Your task to perform on an android device: clear all cookies in the chrome app Image 0: 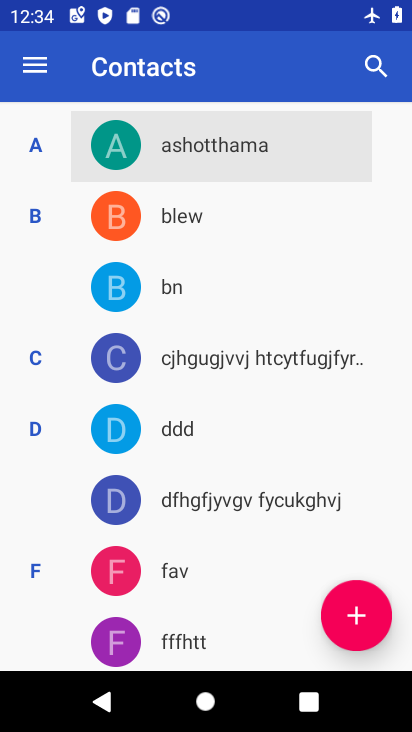
Step 0: press home button
Your task to perform on an android device: clear all cookies in the chrome app Image 1: 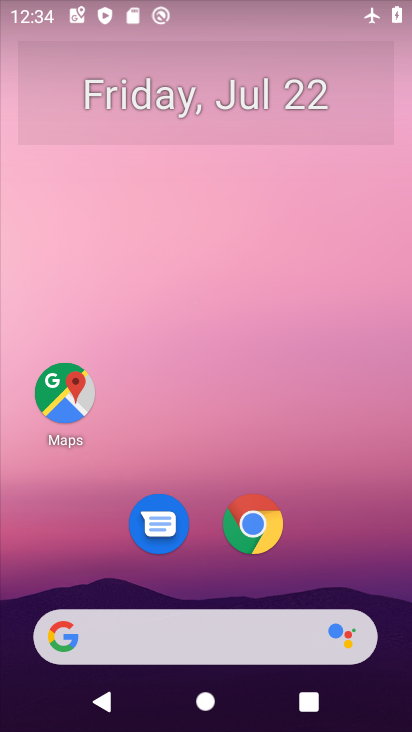
Step 1: drag from (316, 574) to (344, 65)
Your task to perform on an android device: clear all cookies in the chrome app Image 2: 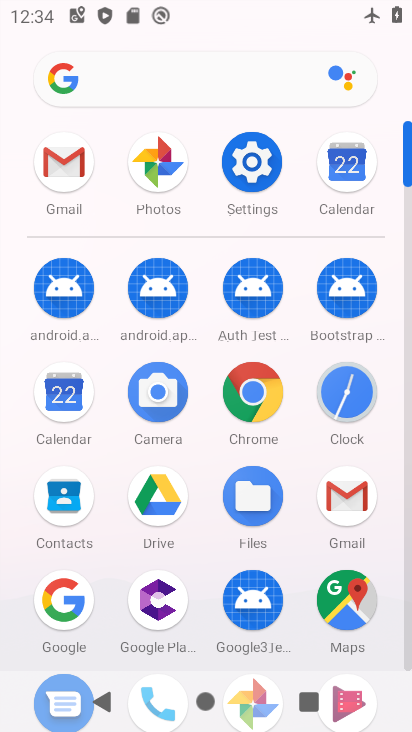
Step 2: click (256, 386)
Your task to perform on an android device: clear all cookies in the chrome app Image 3: 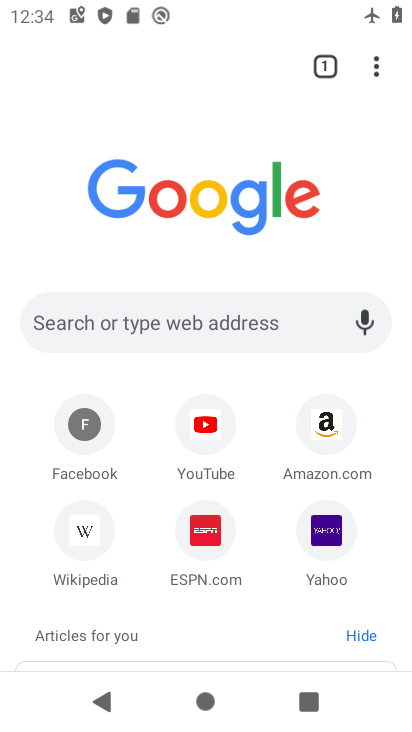
Step 3: click (376, 66)
Your task to perform on an android device: clear all cookies in the chrome app Image 4: 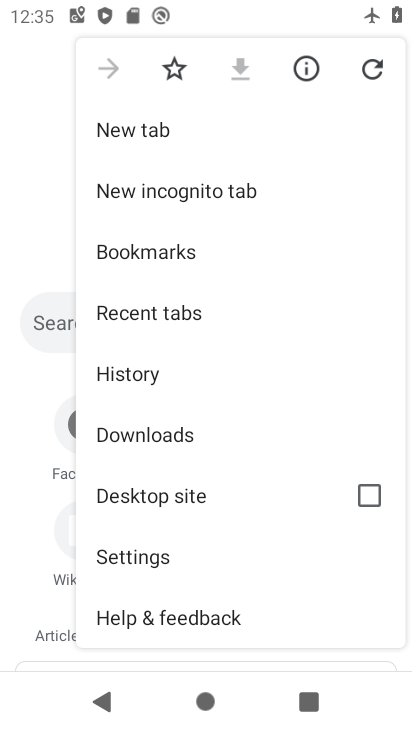
Step 4: click (158, 562)
Your task to perform on an android device: clear all cookies in the chrome app Image 5: 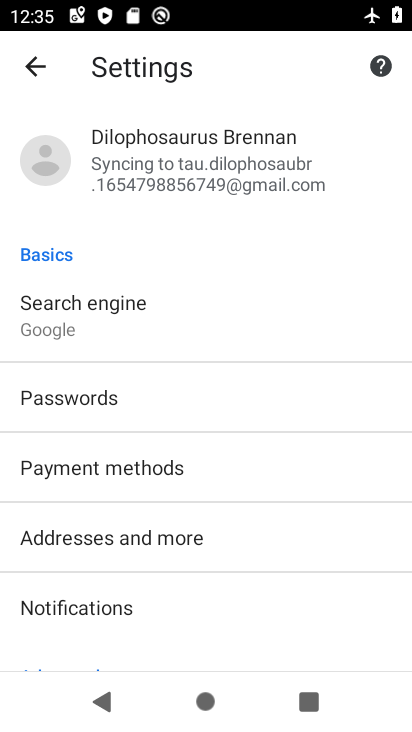
Step 5: drag from (229, 594) to (252, 352)
Your task to perform on an android device: clear all cookies in the chrome app Image 6: 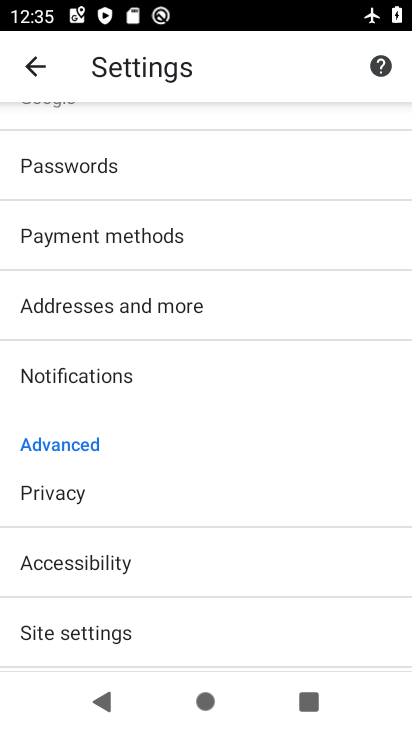
Step 6: click (142, 499)
Your task to perform on an android device: clear all cookies in the chrome app Image 7: 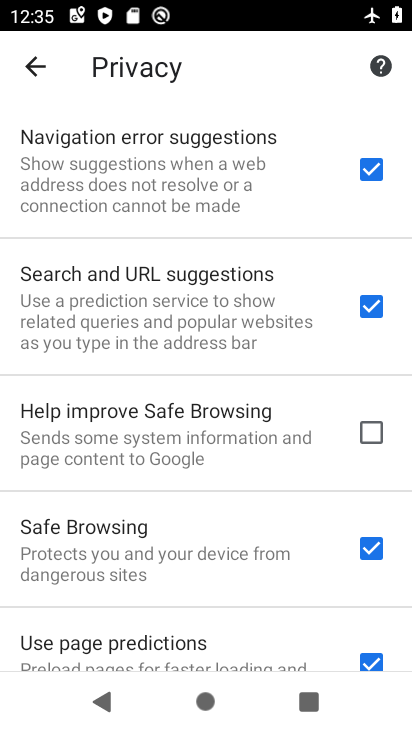
Step 7: drag from (200, 617) to (246, 115)
Your task to perform on an android device: clear all cookies in the chrome app Image 8: 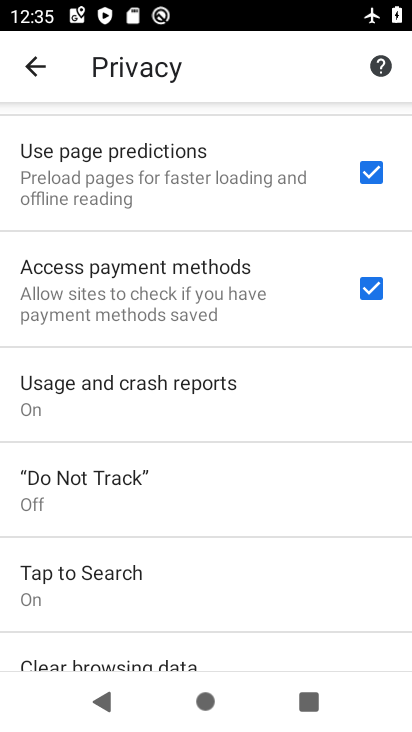
Step 8: drag from (194, 527) to (232, 292)
Your task to perform on an android device: clear all cookies in the chrome app Image 9: 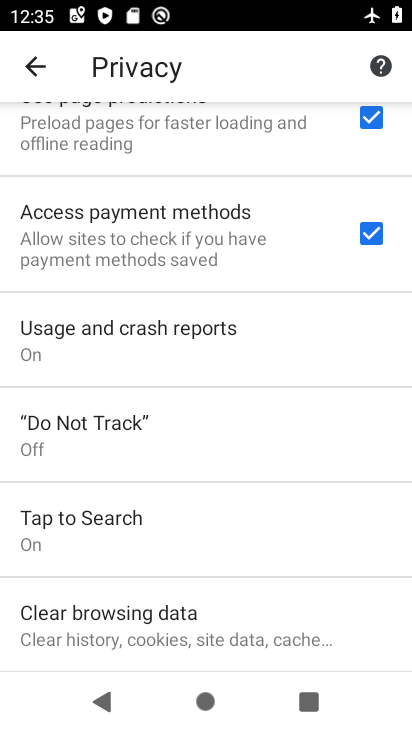
Step 9: click (159, 627)
Your task to perform on an android device: clear all cookies in the chrome app Image 10: 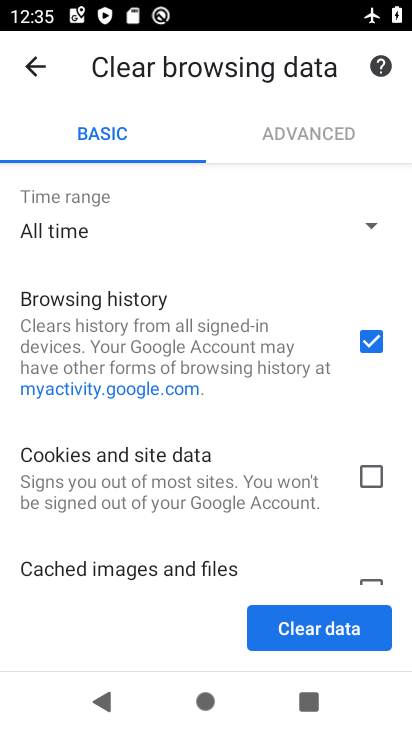
Step 10: click (376, 343)
Your task to perform on an android device: clear all cookies in the chrome app Image 11: 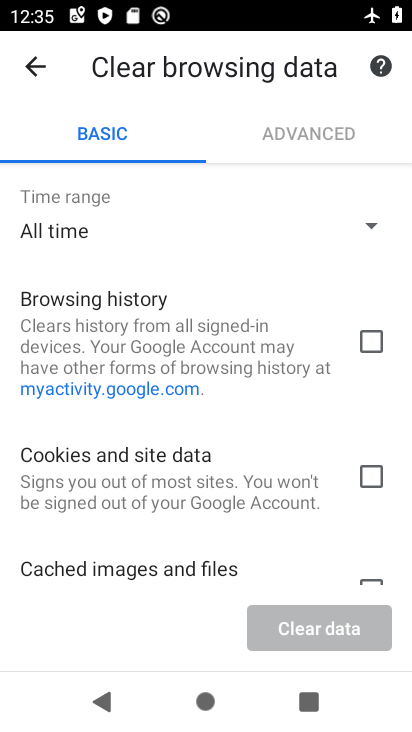
Step 11: click (371, 480)
Your task to perform on an android device: clear all cookies in the chrome app Image 12: 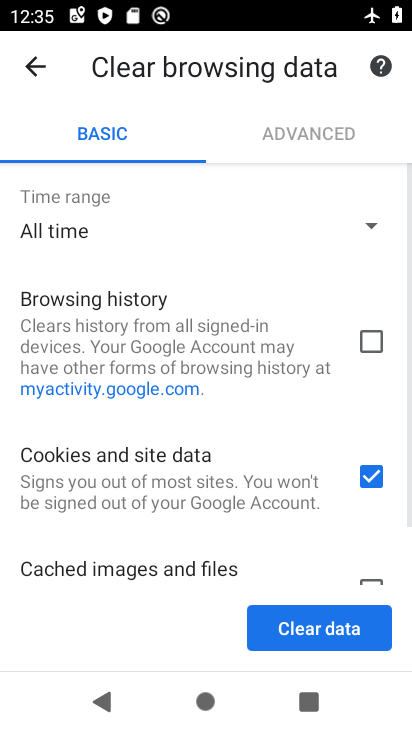
Step 12: click (357, 627)
Your task to perform on an android device: clear all cookies in the chrome app Image 13: 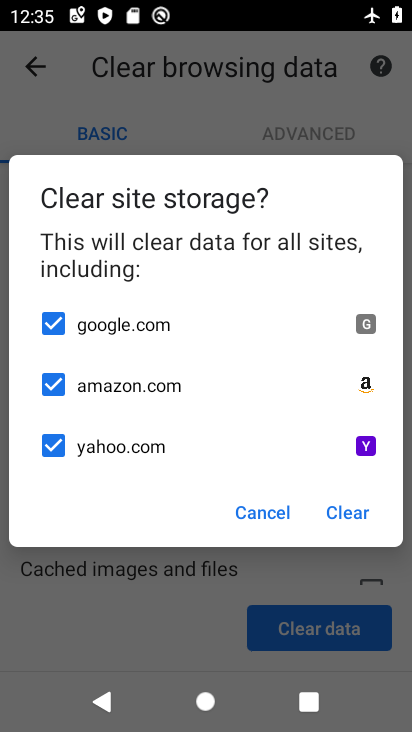
Step 13: click (359, 514)
Your task to perform on an android device: clear all cookies in the chrome app Image 14: 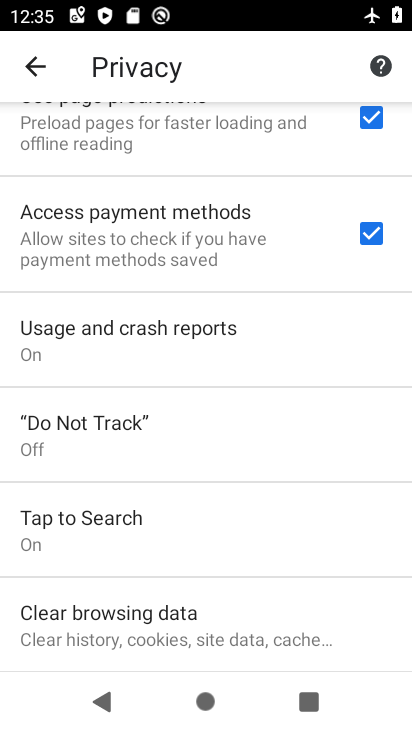
Step 14: task complete